Your task to perform on an android device: turn off improve location accuracy Image 0: 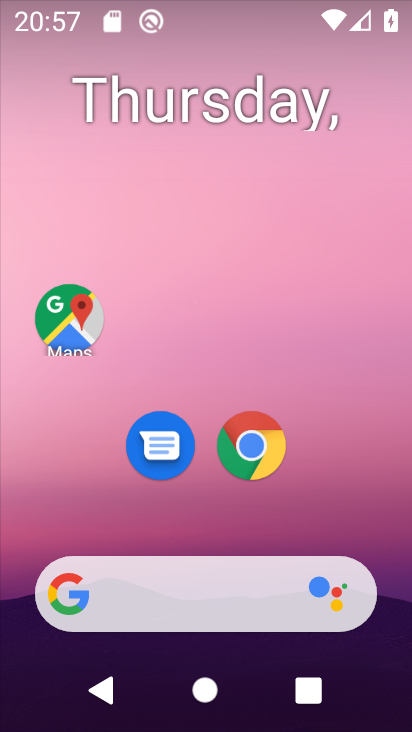
Step 0: drag from (333, 477) to (193, 100)
Your task to perform on an android device: turn off improve location accuracy Image 1: 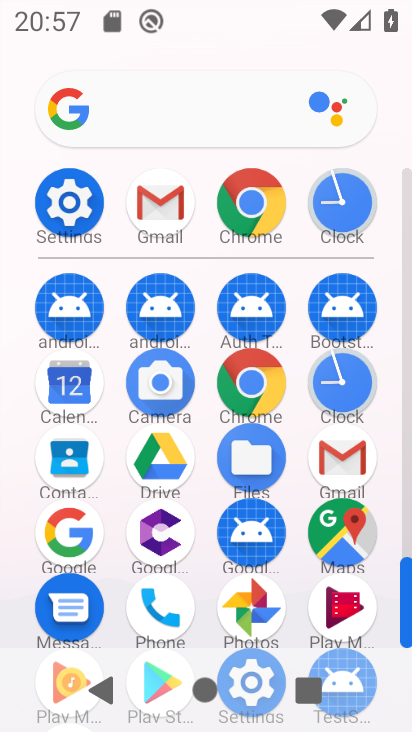
Step 1: click (50, 186)
Your task to perform on an android device: turn off improve location accuracy Image 2: 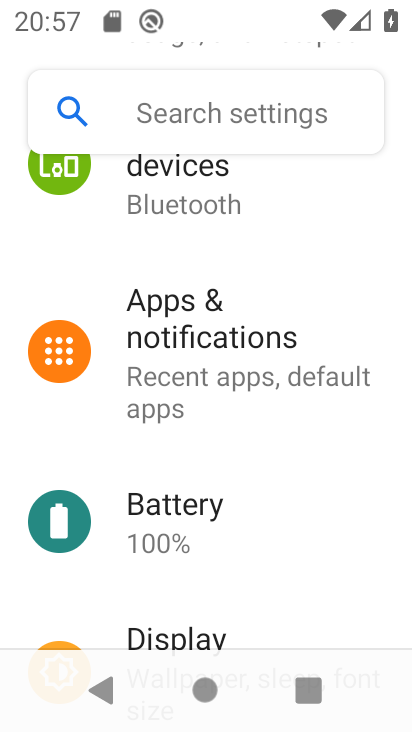
Step 2: drag from (199, 589) to (201, 220)
Your task to perform on an android device: turn off improve location accuracy Image 3: 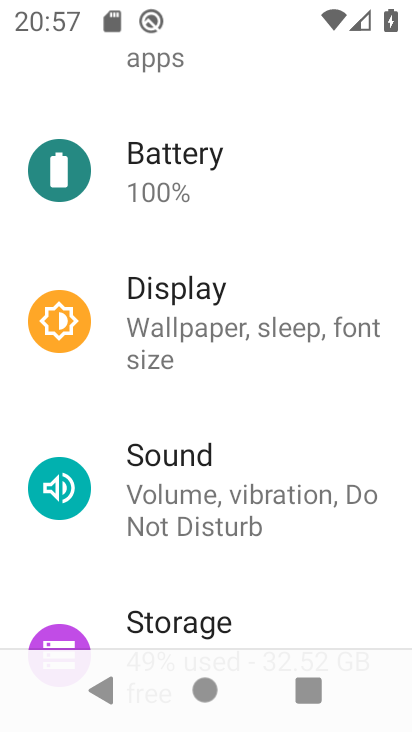
Step 3: drag from (190, 594) to (190, 236)
Your task to perform on an android device: turn off improve location accuracy Image 4: 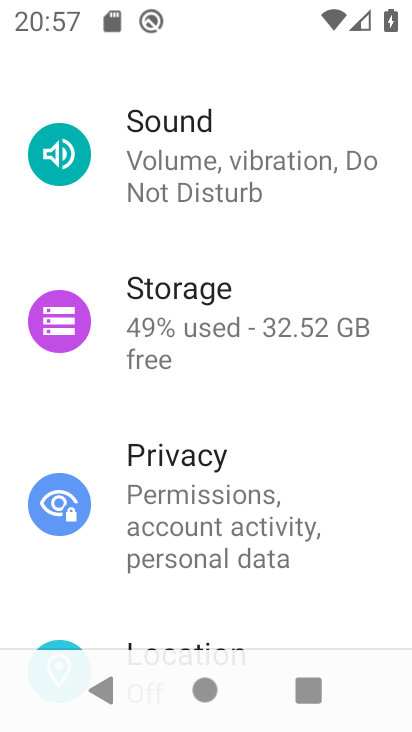
Step 4: drag from (186, 584) to (192, 342)
Your task to perform on an android device: turn off improve location accuracy Image 5: 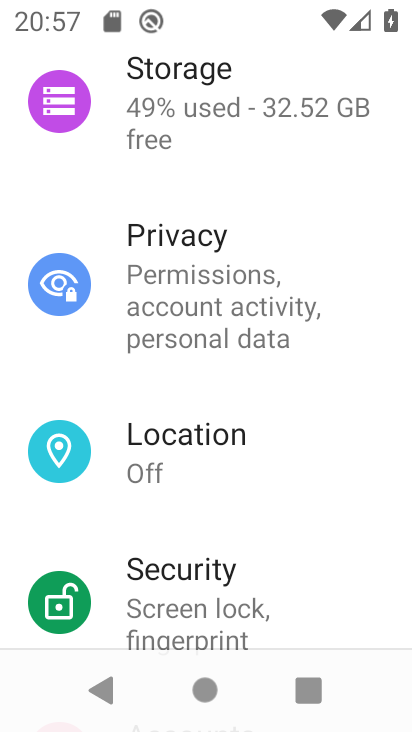
Step 5: click (140, 464)
Your task to perform on an android device: turn off improve location accuracy Image 6: 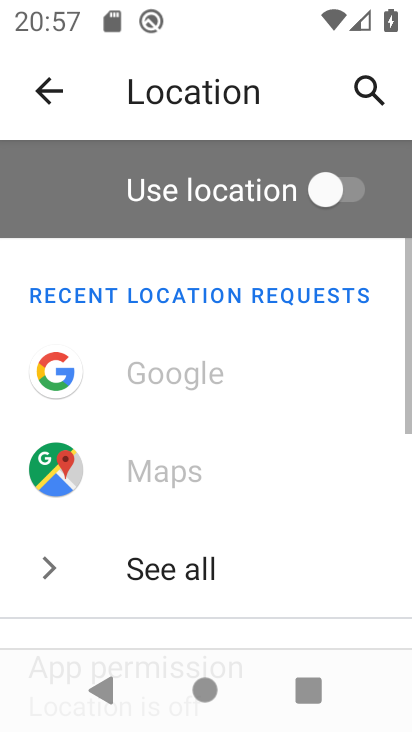
Step 6: drag from (165, 579) to (158, 157)
Your task to perform on an android device: turn off improve location accuracy Image 7: 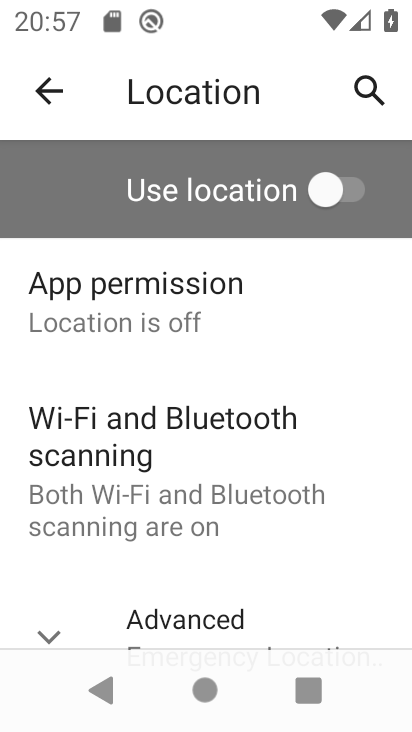
Step 7: drag from (235, 602) to (236, 282)
Your task to perform on an android device: turn off improve location accuracy Image 8: 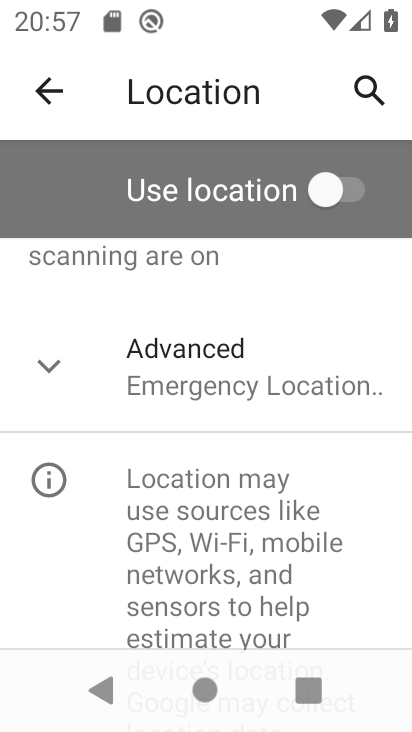
Step 8: click (205, 372)
Your task to perform on an android device: turn off improve location accuracy Image 9: 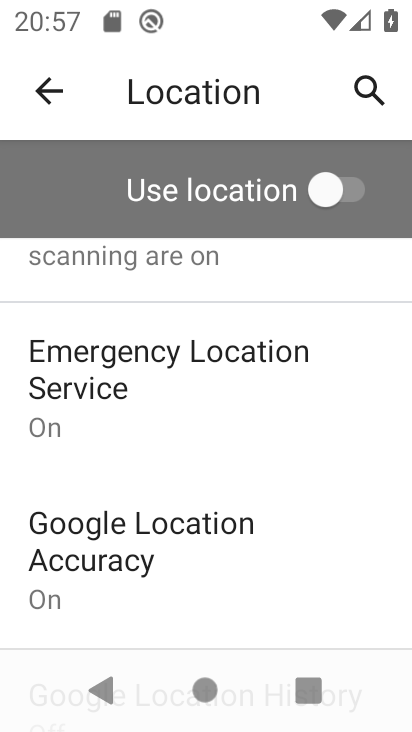
Step 9: click (100, 543)
Your task to perform on an android device: turn off improve location accuracy Image 10: 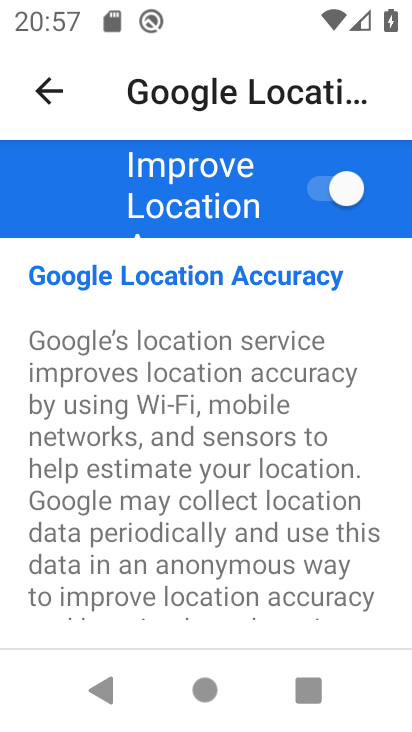
Step 10: click (330, 194)
Your task to perform on an android device: turn off improve location accuracy Image 11: 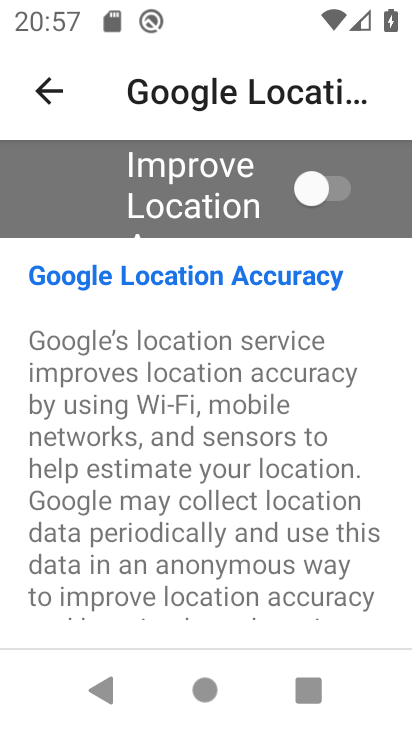
Step 11: task complete